Your task to perform on an android device: Open Google Chrome and open the bookmarks view Image 0: 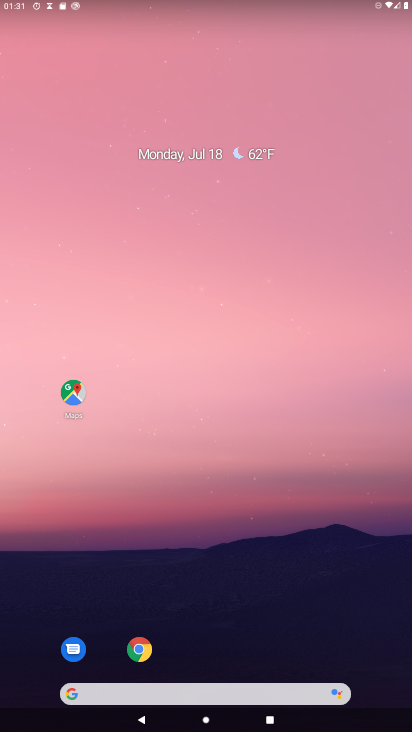
Step 0: click (138, 650)
Your task to perform on an android device: Open Google Chrome and open the bookmarks view Image 1: 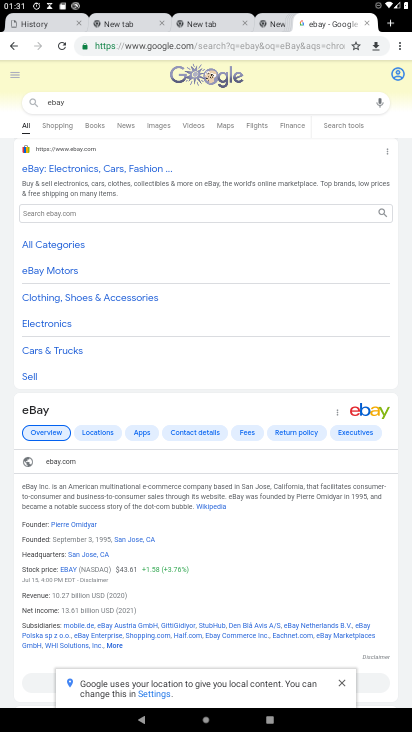
Step 1: click (400, 44)
Your task to perform on an android device: Open Google Chrome and open the bookmarks view Image 2: 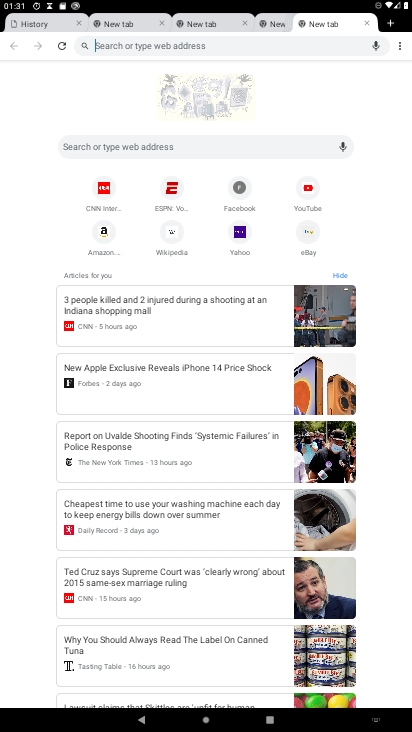
Step 2: click (396, 44)
Your task to perform on an android device: Open Google Chrome and open the bookmarks view Image 3: 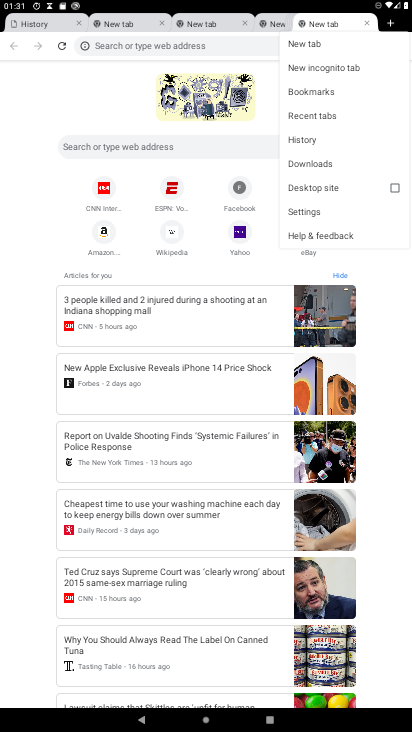
Step 3: click (312, 90)
Your task to perform on an android device: Open Google Chrome and open the bookmarks view Image 4: 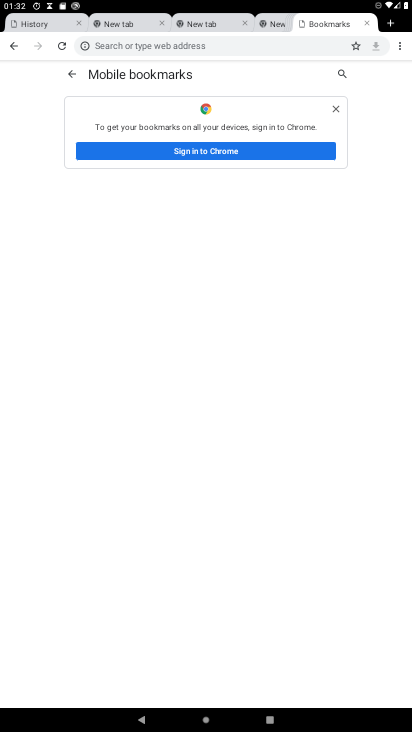
Step 4: task complete